Your task to perform on an android device: set the stopwatch Image 0: 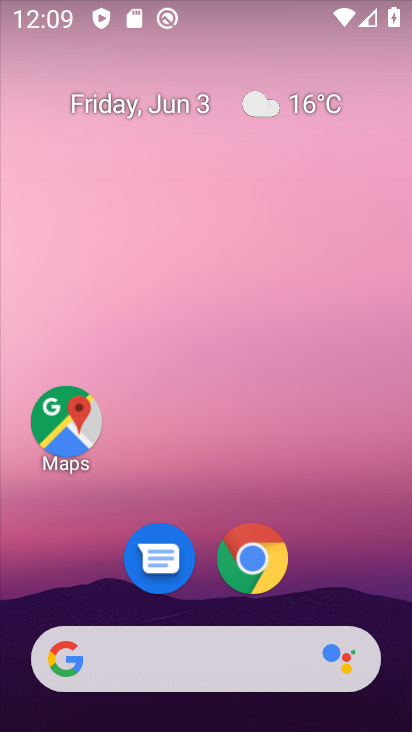
Step 0: drag from (367, 530) to (361, 129)
Your task to perform on an android device: set the stopwatch Image 1: 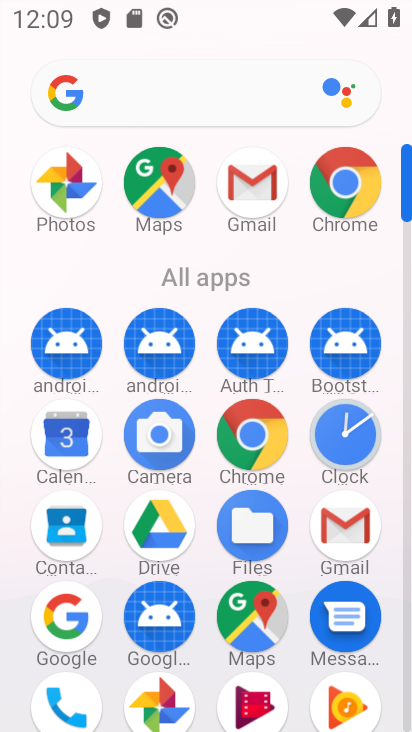
Step 1: click (342, 432)
Your task to perform on an android device: set the stopwatch Image 2: 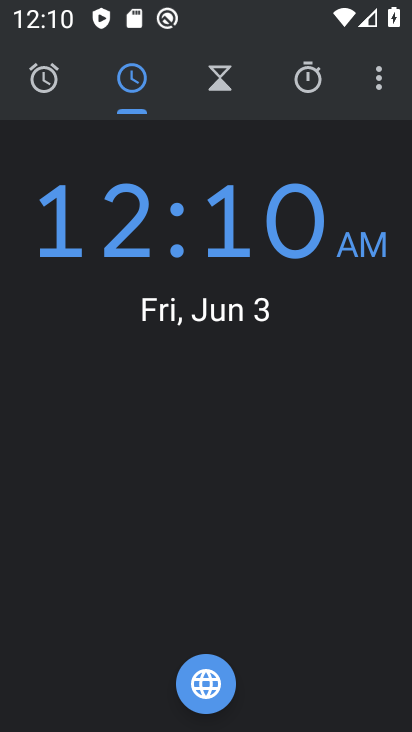
Step 2: click (304, 88)
Your task to perform on an android device: set the stopwatch Image 3: 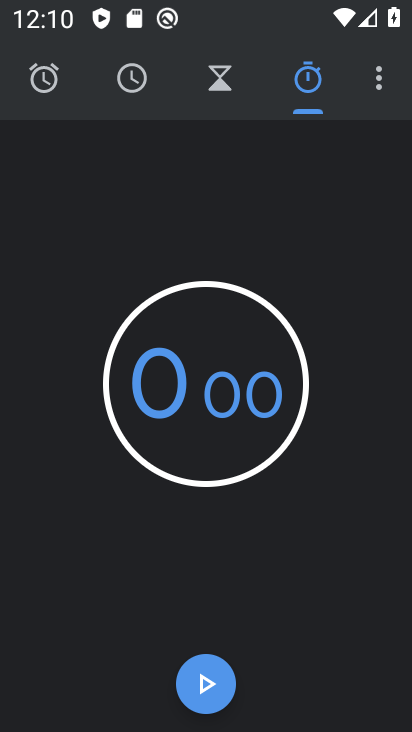
Step 3: click (219, 666)
Your task to perform on an android device: set the stopwatch Image 4: 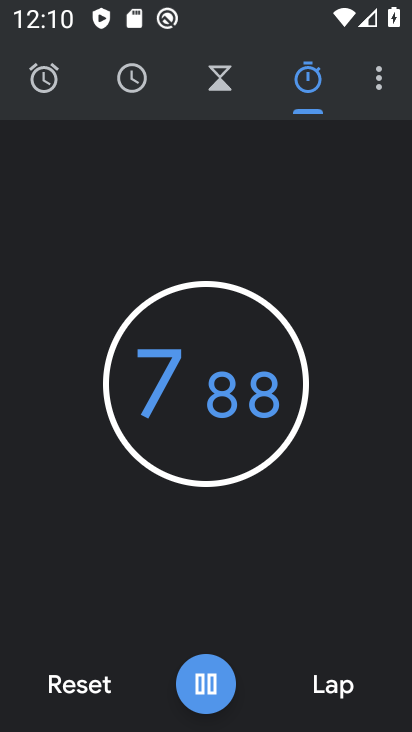
Step 4: task complete